Your task to perform on an android device: all mails in gmail Image 0: 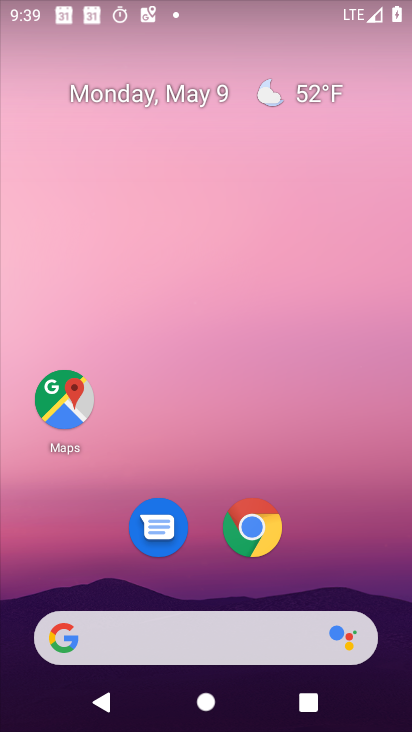
Step 0: drag from (377, 552) to (359, 111)
Your task to perform on an android device: all mails in gmail Image 1: 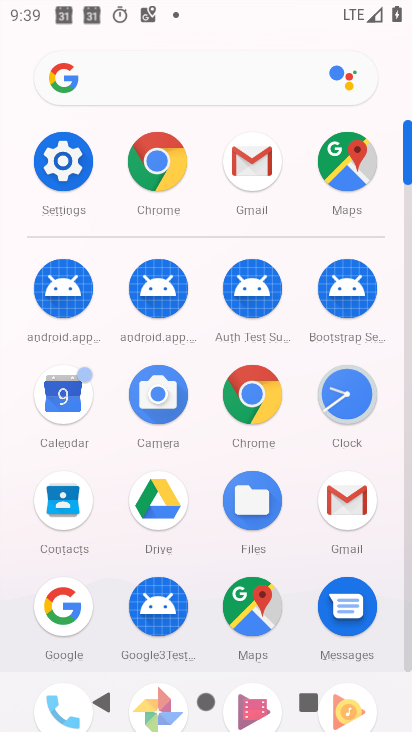
Step 1: click (247, 149)
Your task to perform on an android device: all mails in gmail Image 2: 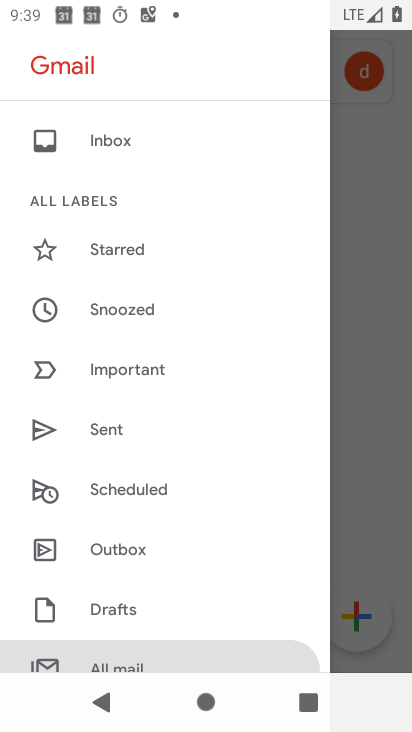
Step 2: click (129, 662)
Your task to perform on an android device: all mails in gmail Image 3: 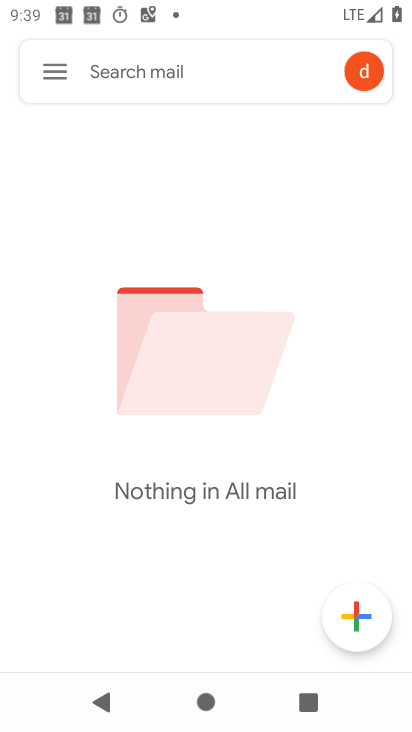
Step 3: task complete